Your task to perform on an android device: Search for a new bike on Walmart. Image 0: 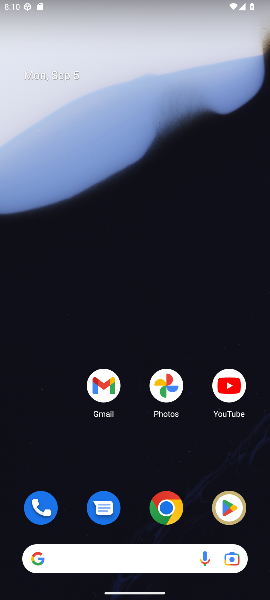
Step 0: click (153, 511)
Your task to perform on an android device: Search for a new bike on Walmart. Image 1: 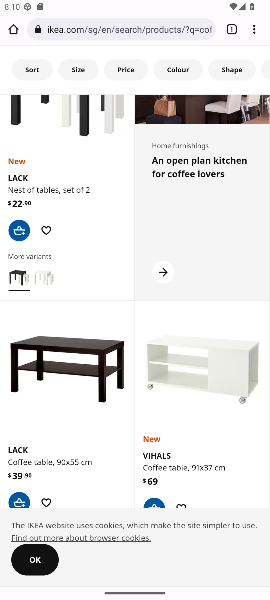
Step 1: click (142, 30)
Your task to perform on an android device: Search for a new bike on Walmart. Image 2: 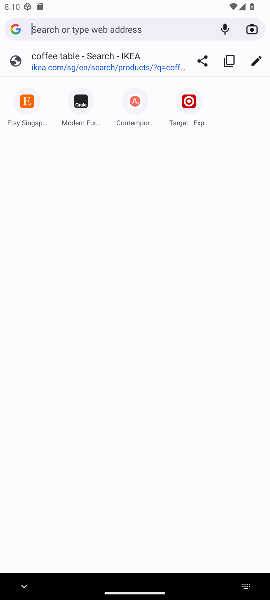
Step 2: type "Walmart."
Your task to perform on an android device: Search for a new bike on Walmart. Image 3: 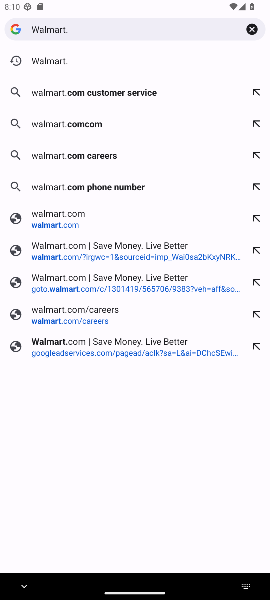
Step 3: click (47, 62)
Your task to perform on an android device: Search for a new bike on Walmart. Image 4: 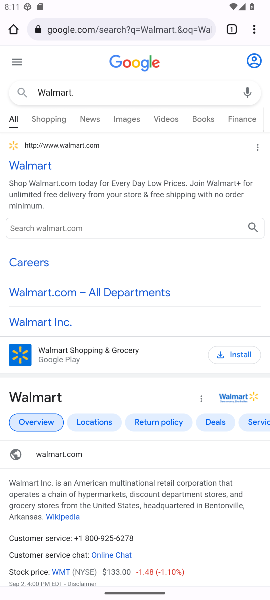
Step 4: click (29, 170)
Your task to perform on an android device: Search for a new bike on Walmart. Image 5: 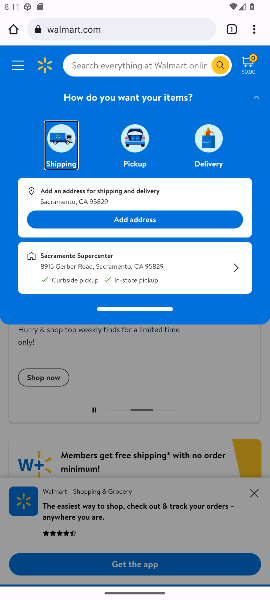
Step 5: click (120, 65)
Your task to perform on an android device: Search for a new bike on Walmart. Image 6: 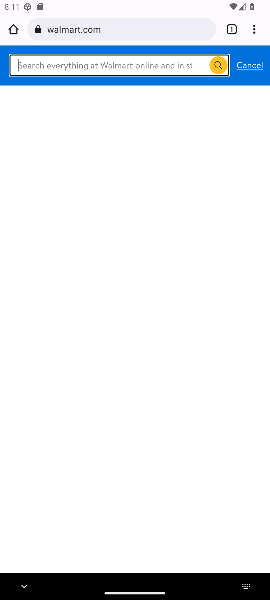
Step 6: type "new bike "
Your task to perform on an android device: Search for a new bike on Walmart. Image 7: 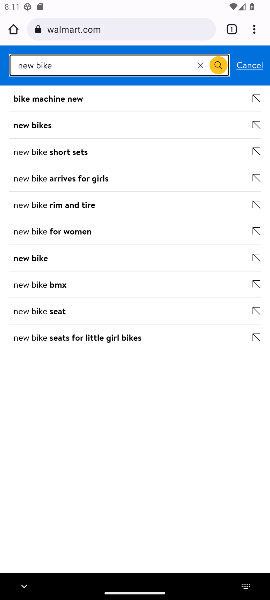
Step 7: click (38, 127)
Your task to perform on an android device: Search for a new bike on Walmart. Image 8: 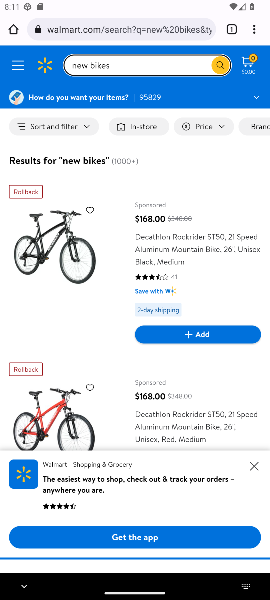
Step 8: task complete